Your task to perform on an android device: Open location settings Image 0: 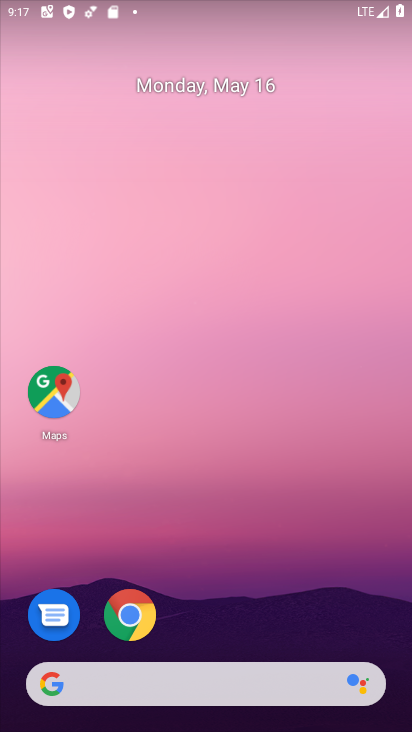
Step 0: drag from (231, 575) to (357, 4)
Your task to perform on an android device: Open location settings Image 1: 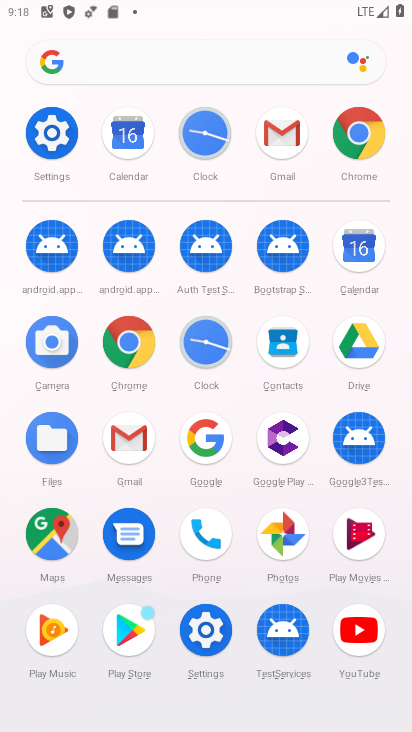
Step 1: click (57, 155)
Your task to perform on an android device: Open location settings Image 2: 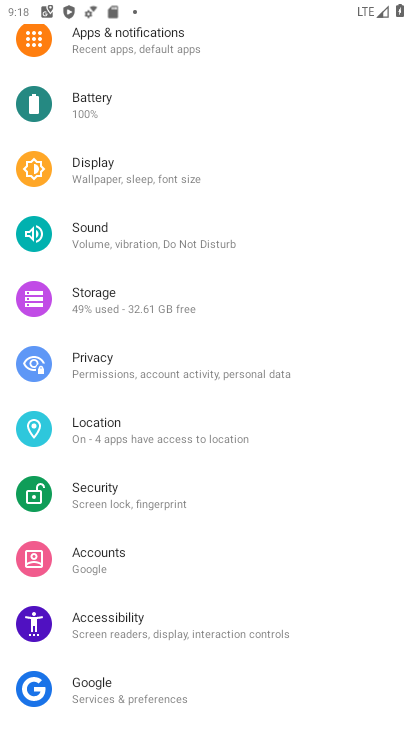
Step 2: drag from (140, 230) to (283, 275)
Your task to perform on an android device: Open location settings Image 3: 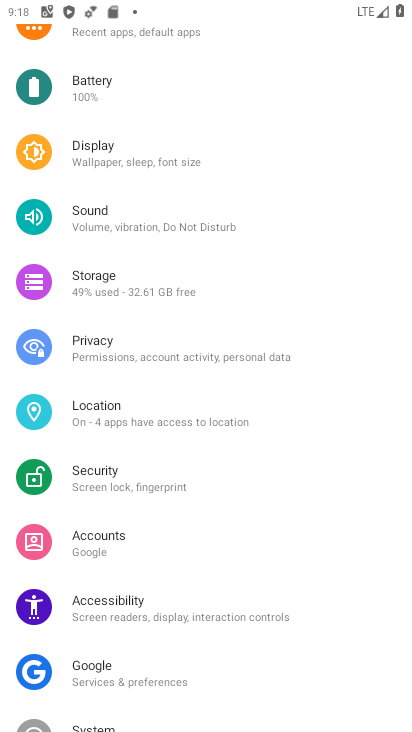
Step 3: click (270, 427)
Your task to perform on an android device: Open location settings Image 4: 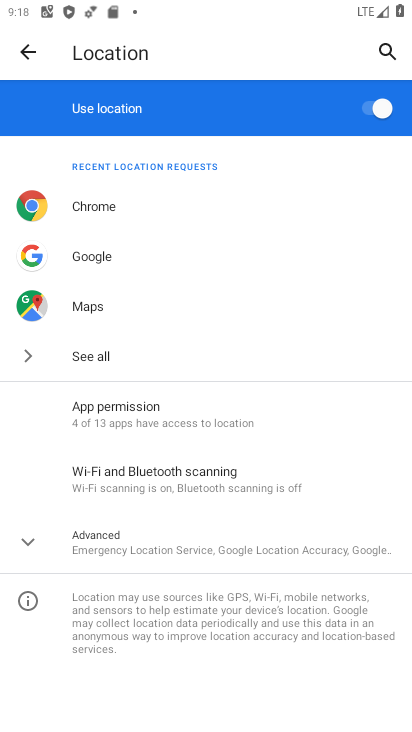
Step 4: press home button
Your task to perform on an android device: Open location settings Image 5: 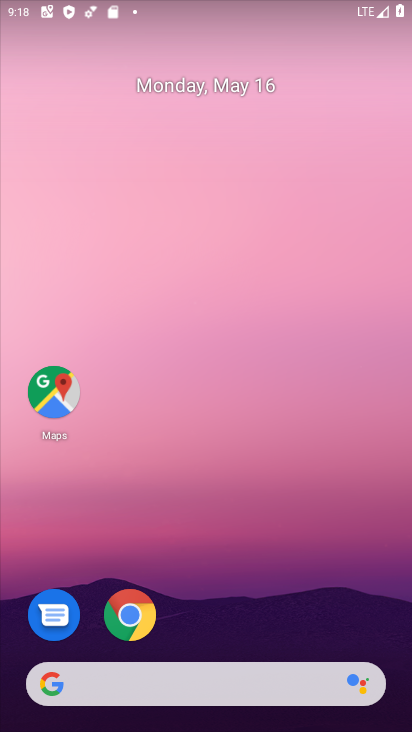
Step 5: drag from (186, 619) to (215, 176)
Your task to perform on an android device: Open location settings Image 6: 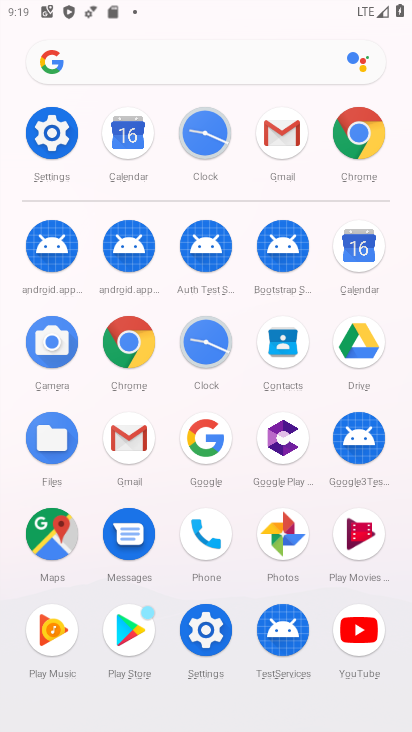
Step 6: click (61, 158)
Your task to perform on an android device: Open location settings Image 7: 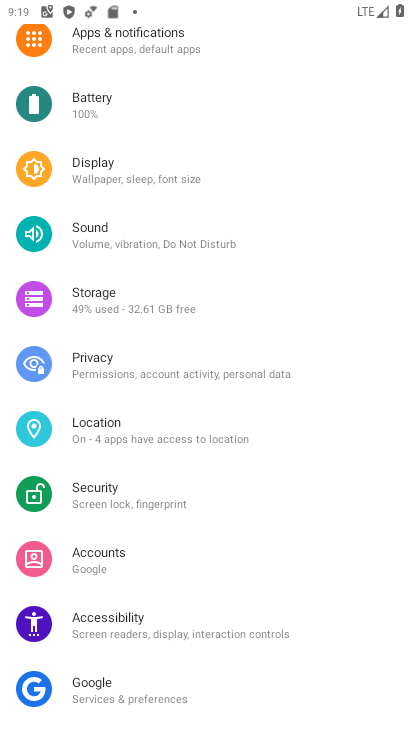
Step 7: click (156, 439)
Your task to perform on an android device: Open location settings Image 8: 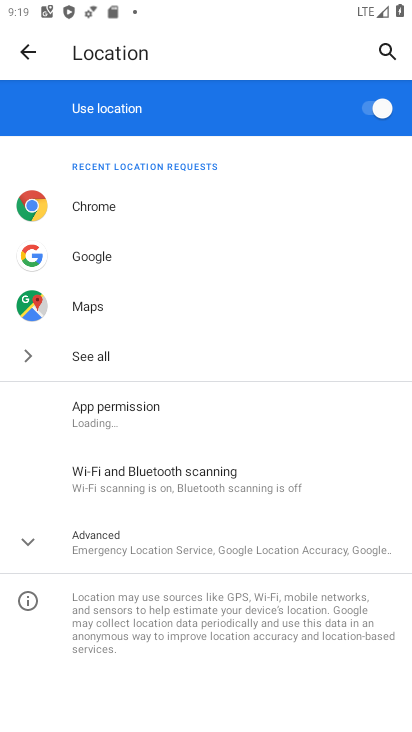
Step 8: task complete